Your task to perform on an android device: check the backup settings in the google photos Image 0: 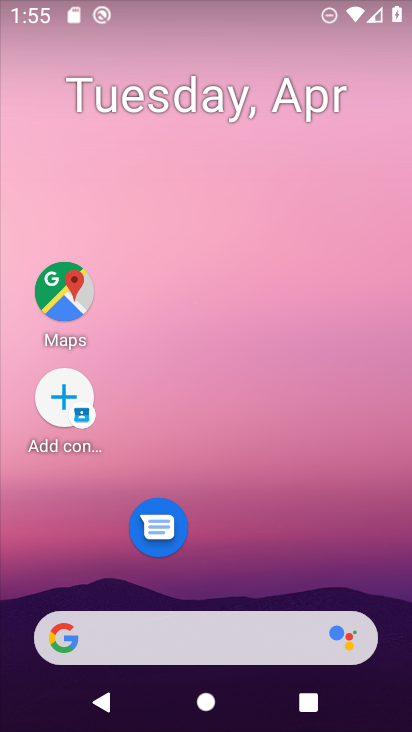
Step 0: drag from (245, 584) to (246, 47)
Your task to perform on an android device: check the backup settings in the google photos Image 1: 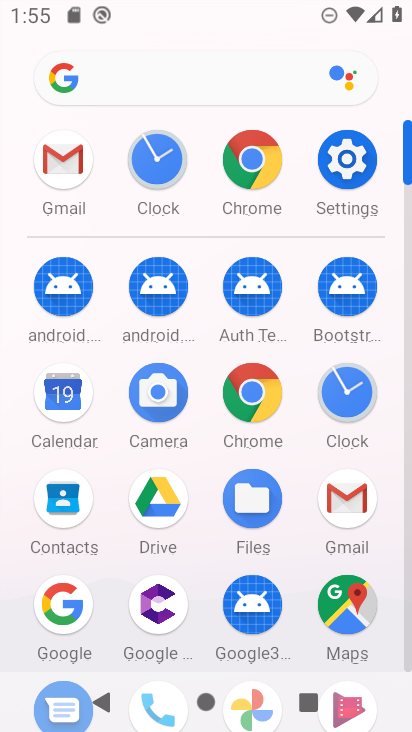
Step 1: drag from (207, 620) to (203, 323)
Your task to perform on an android device: check the backup settings in the google photos Image 2: 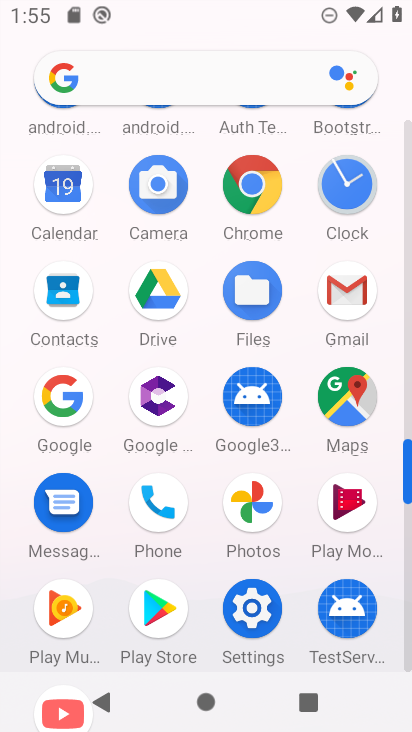
Step 2: click (252, 506)
Your task to perform on an android device: check the backup settings in the google photos Image 3: 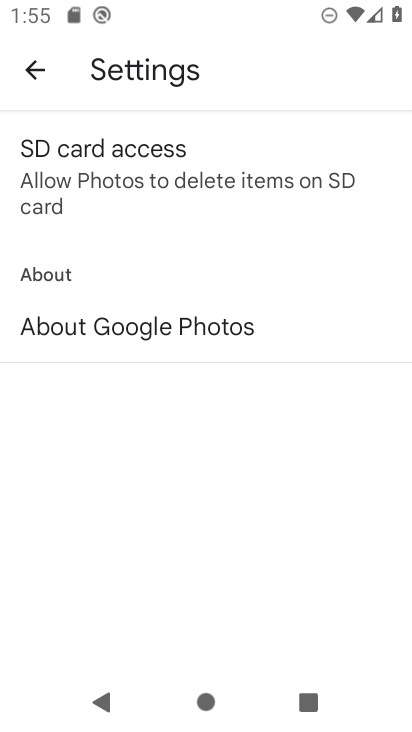
Step 3: press back button
Your task to perform on an android device: check the backup settings in the google photos Image 4: 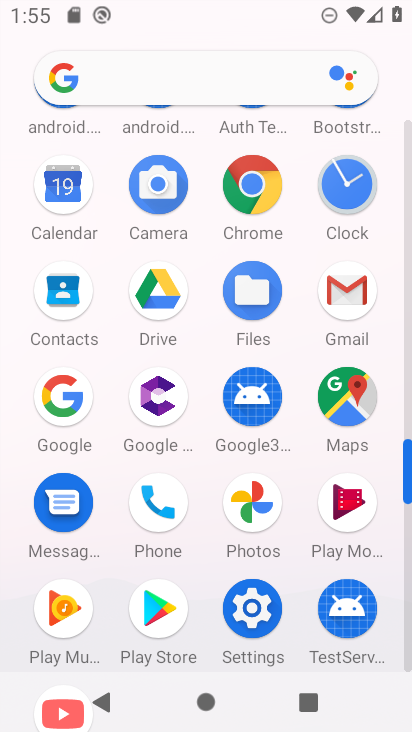
Step 4: click (254, 503)
Your task to perform on an android device: check the backup settings in the google photos Image 5: 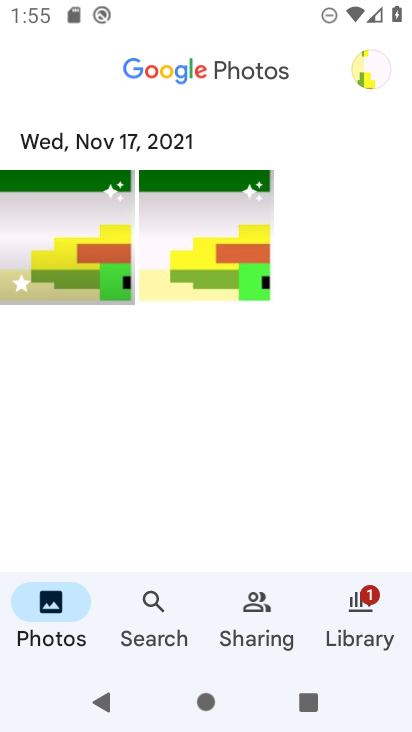
Step 5: click (377, 78)
Your task to perform on an android device: check the backup settings in the google photos Image 6: 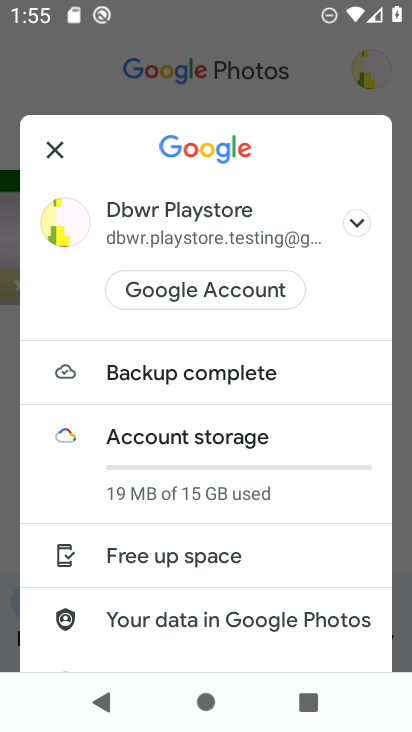
Step 6: drag from (243, 547) to (278, 401)
Your task to perform on an android device: check the backup settings in the google photos Image 7: 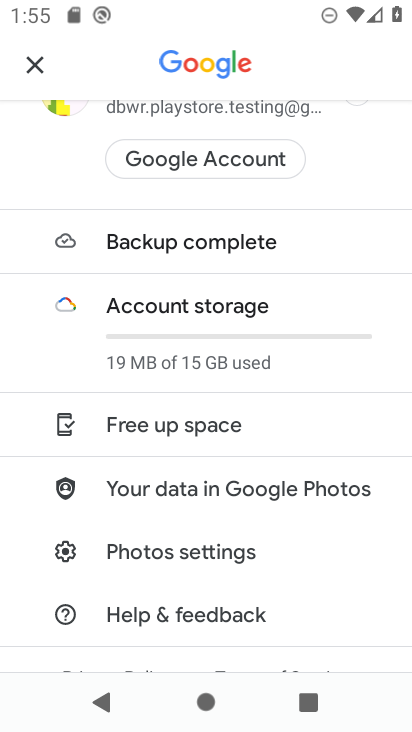
Step 7: drag from (246, 587) to (253, 505)
Your task to perform on an android device: check the backup settings in the google photos Image 8: 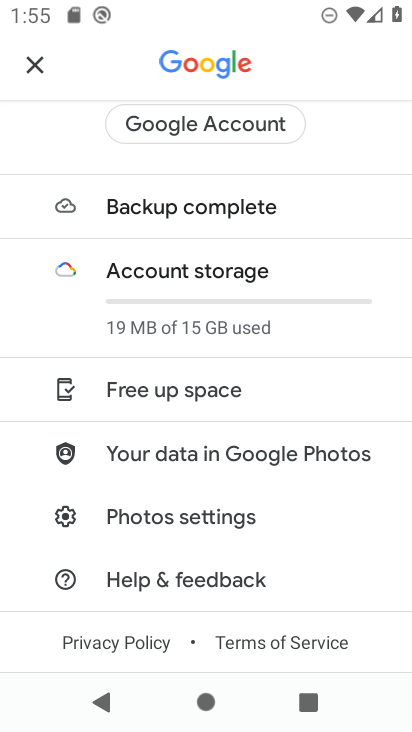
Step 8: click (240, 518)
Your task to perform on an android device: check the backup settings in the google photos Image 9: 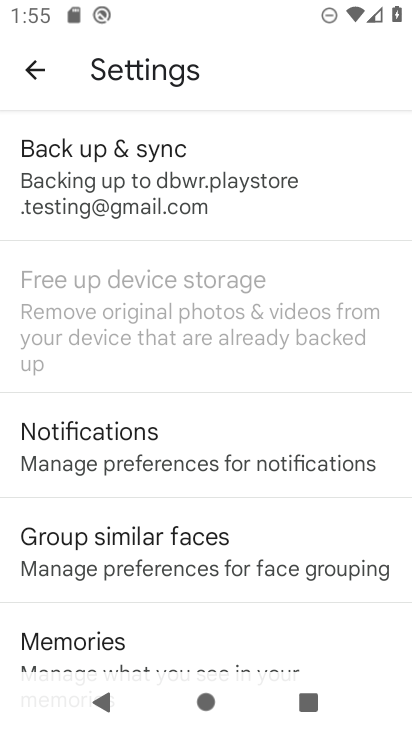
Step 9: click (141, 160)
Your task to perform on an android device: check the backup settings in the google photos Image 10: 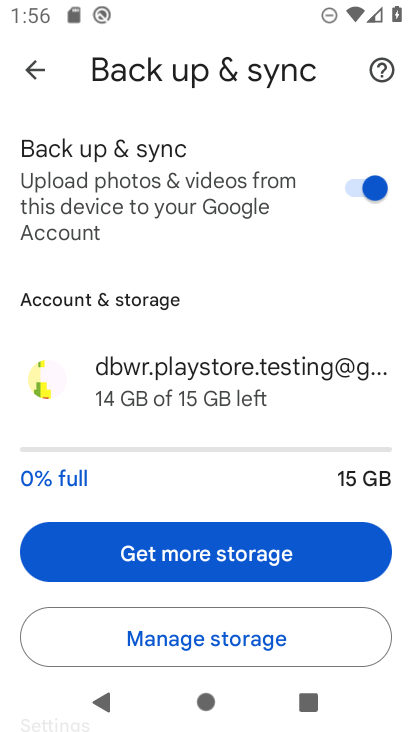
Step 10: task complete